Your task to perform on an android device: refresh tabs in the chrome app Image 0: 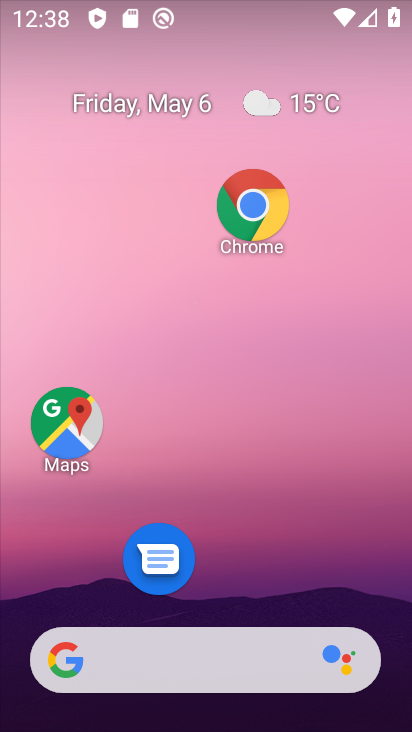
Step 0: click (263, 235)
Your task to perform on an android device: refresh tabs in the chrome app Image 1: 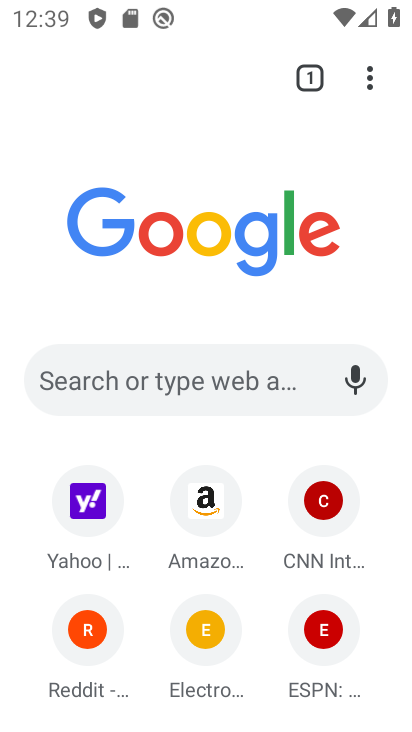
Step 1: click (369, 89)
Your task to perform on an android device: refresh tabs in the chrome app Image 2: 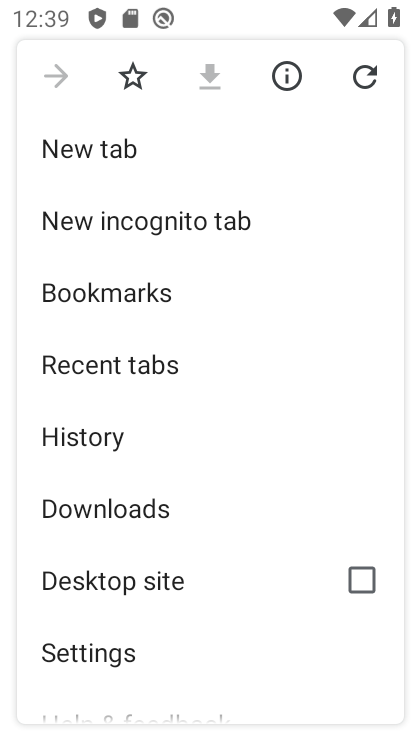
Step 2: click (363, 77)
Your task to perform on an android device: refresh tabs in the chrome app Image 3: 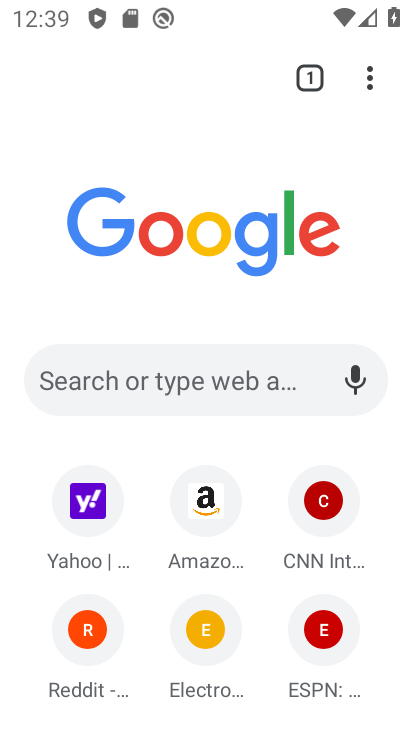
Step 3: task complete